Your task to perform on an android device: set the timer Image 0: 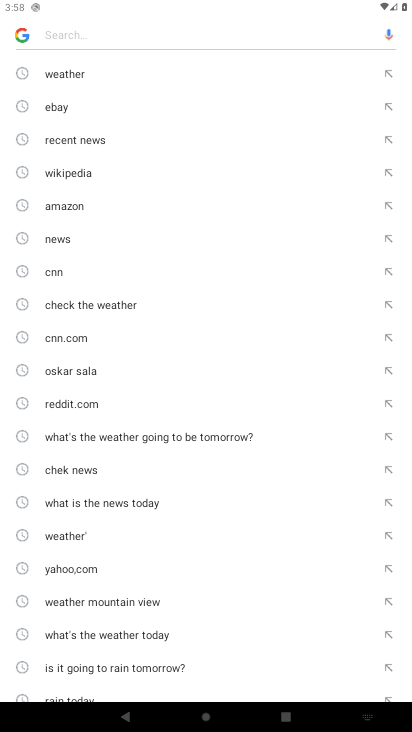
Step 0: press home button
Your task to perform on an android device: set the timer Image 1: 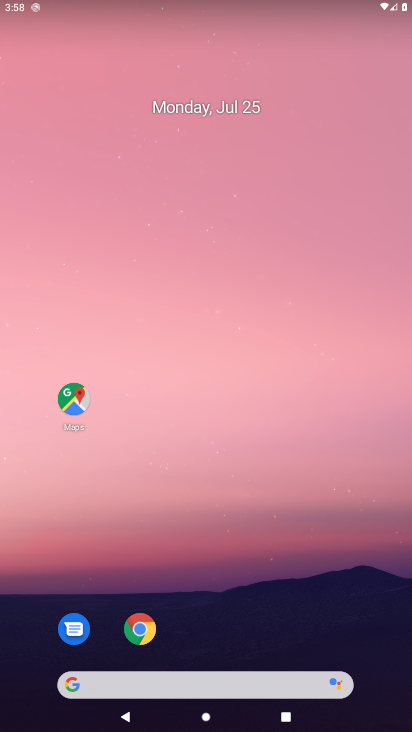
Step 1: drag from (42, 698) to (5, 703)
Your task to perform on an android device: set the timer Image 2: 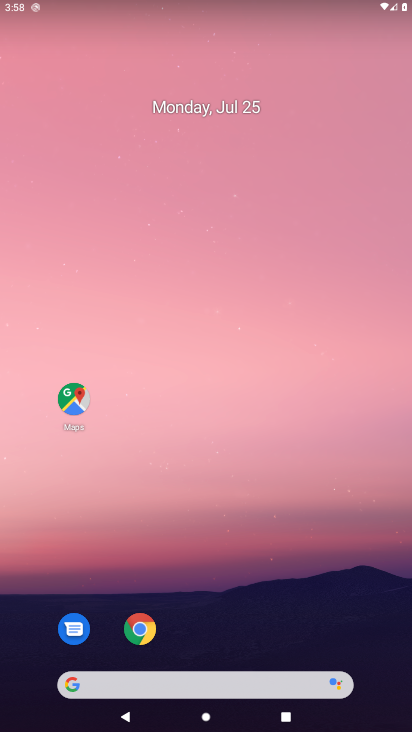
Step 2: drag from (51, 686) to (186, 175)
Your task to perform on an android device: set the timer Image 3: 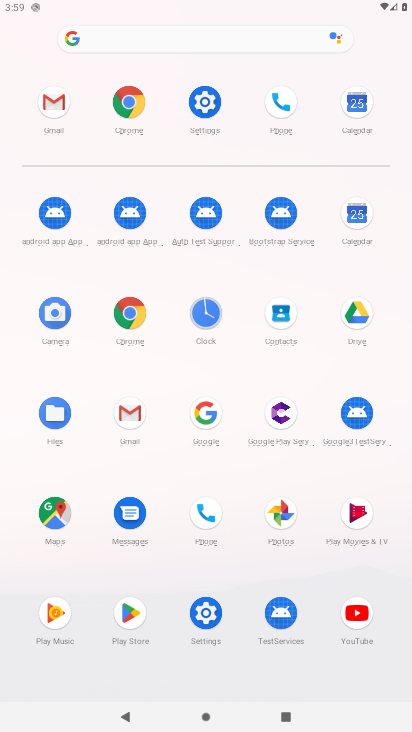
Step 3: click (191, 320)
Your task to perform on an android device: set the timer Image 4: 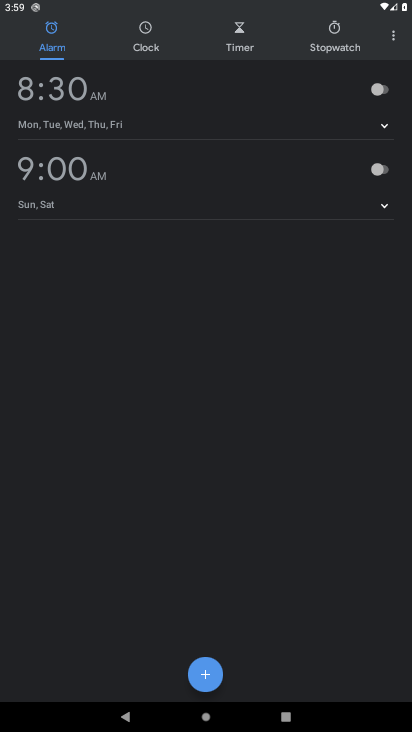
Step 4: click (247, 40)
Your task to perform on an android device: set the timer Image 5: 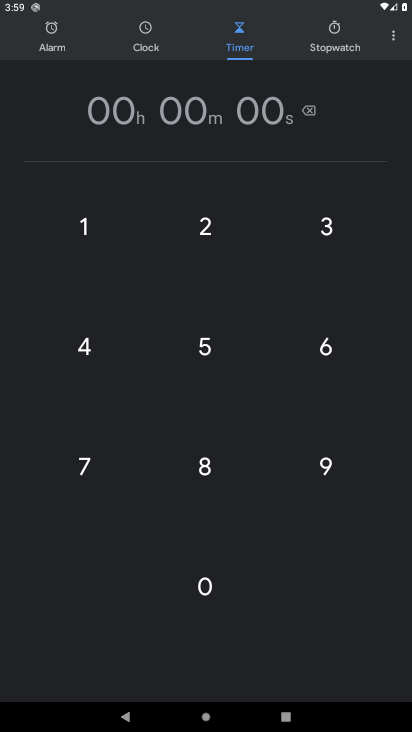
Step 5: click (213, 234)
Your task to perform on an android device: set the timer Image 6: 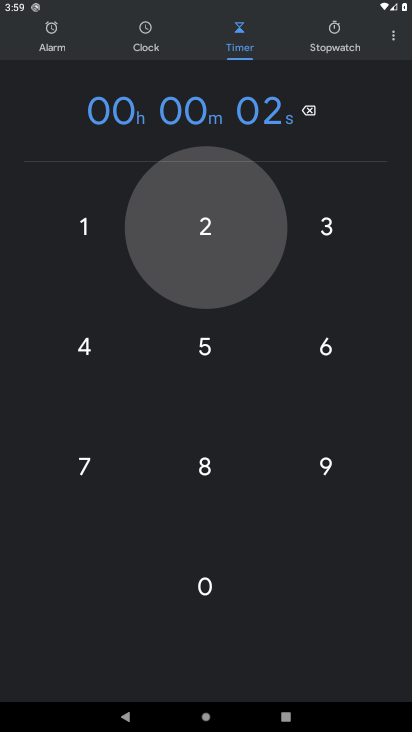
Step 6: click (203, 388)
Your task to perform on an android device: set the timer Image 7: 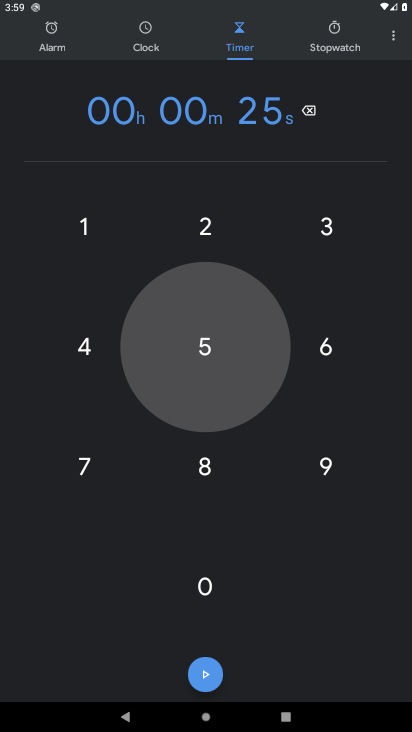
Step 7: click (66, 392)
Your task to perform on an android device: set the timer Image 8: 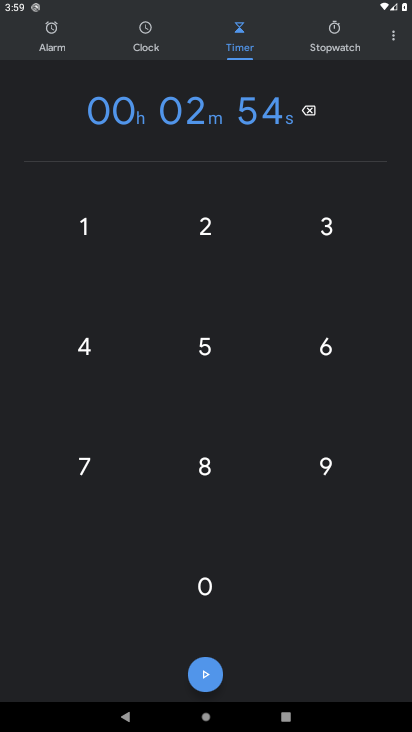
Step 8: click (66, 341)
Your task to perform on an android device: set the timer Image 9: 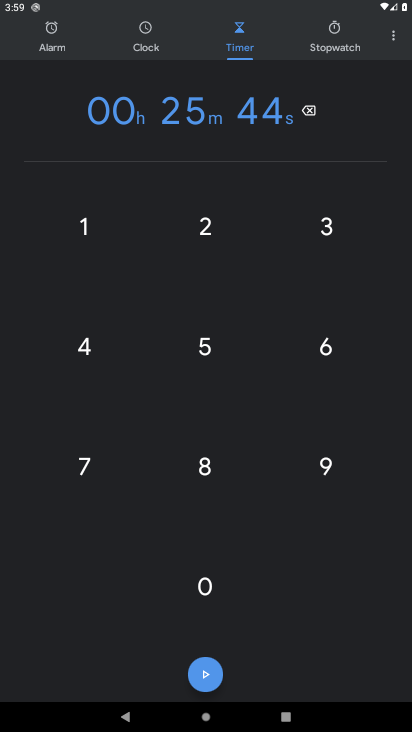
Step 9: click (193, 679)
Your task to perform on an android device: set the timer Image 10: 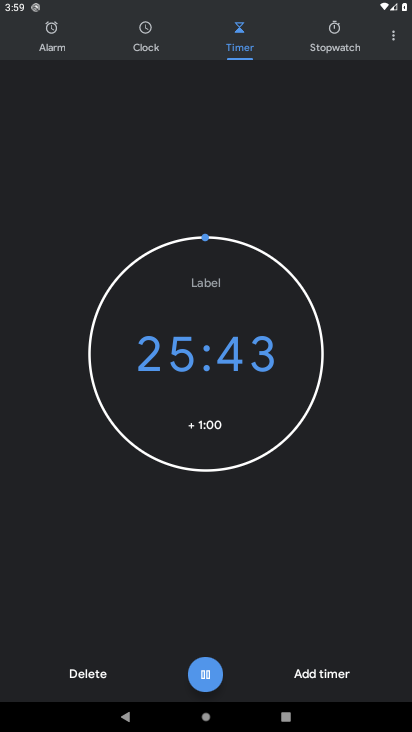
Step 10: click (208, 686)
Your task to perform on an android device: set the timer Image 11: 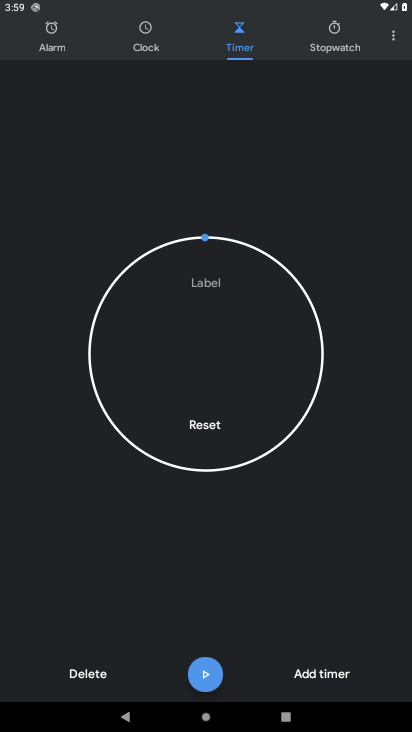
Step 11: task complete